Your task to perform on an android device: Search for Italian restaurants on Maps Image 0: 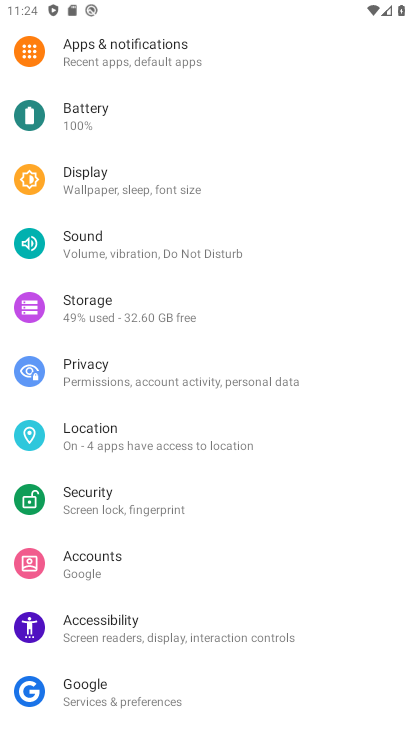
Step 0: press home button
Your task to perform on an android device: Search for Italian restaurants on Maps Image 1: 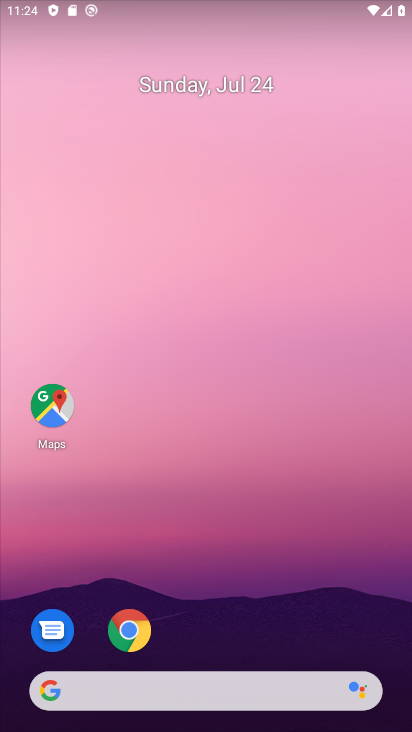
Step 1: drag from (184, 497) to (222, 185)
Your task to perform on an android device: Search for Italian restaurants on Maps Image 2: 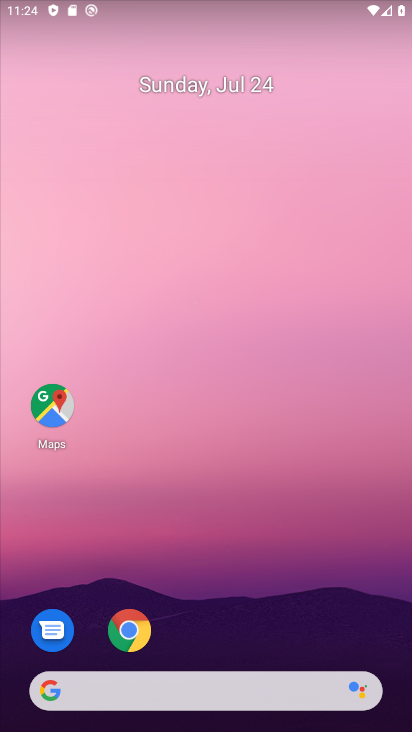
Step 2: click (54, 401)
Your task to perform on an android device: Search for Italian restaurants on Maps Image 3: 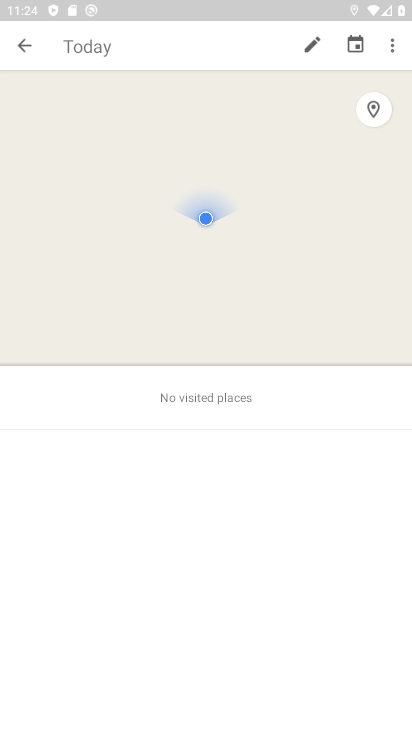
Step 3: click (21, 45)
Your task to perform on an android device: Search for Italian restaurants on Maps Image 4: 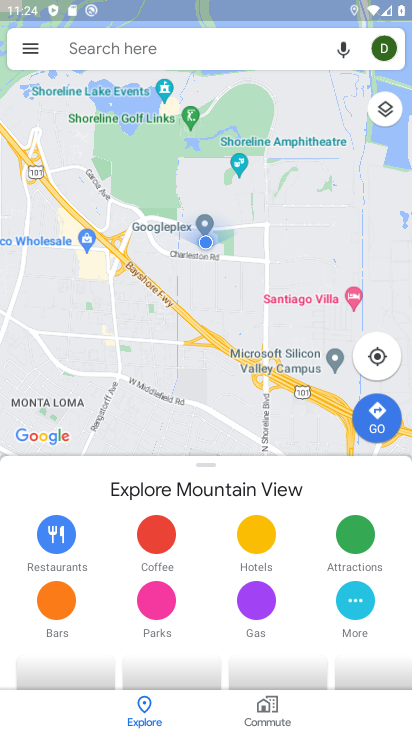
Step 4: click (197, 50)
Your task to perform on an android device: Search for Italian restaurants on Maps Image 5: 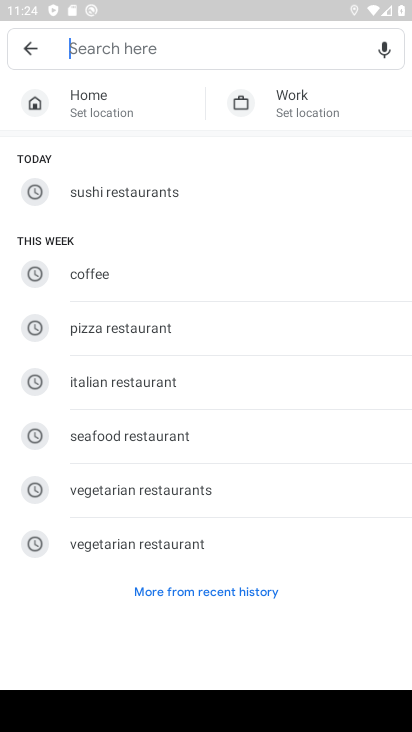
Step 5: click (125, 379)
Your task to perform on an android device: Search for Italian restaurants on Maps Image 6: 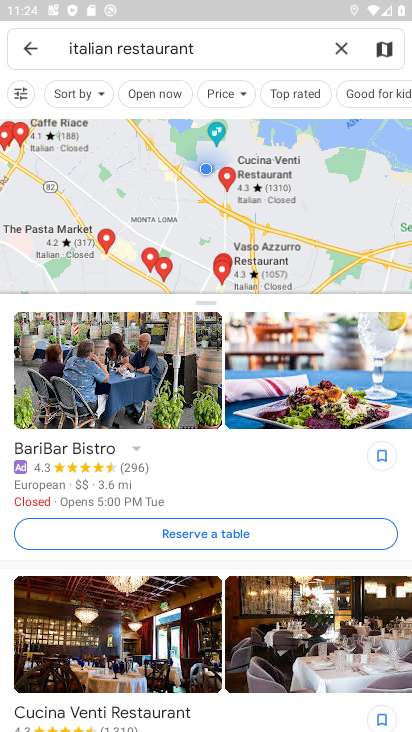
Step 6: task complete